Your task to perform on an android device: Show me the alarms in the clock app Image 0: 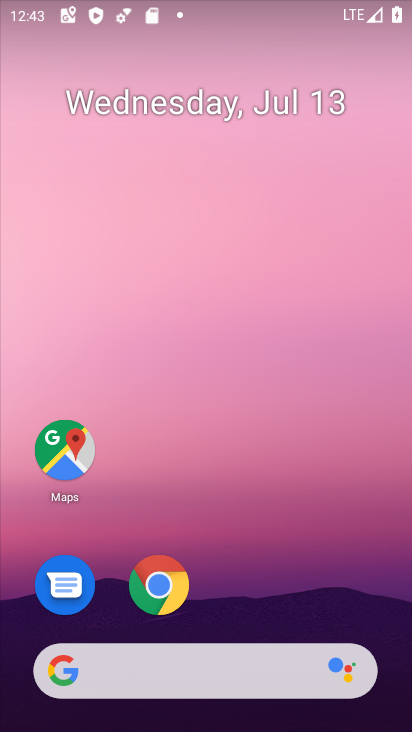
Step 0: drag from (231, 579) to (219, 160)
Your task to perform on an android device: Show me the alarms in the clock app Image 1: 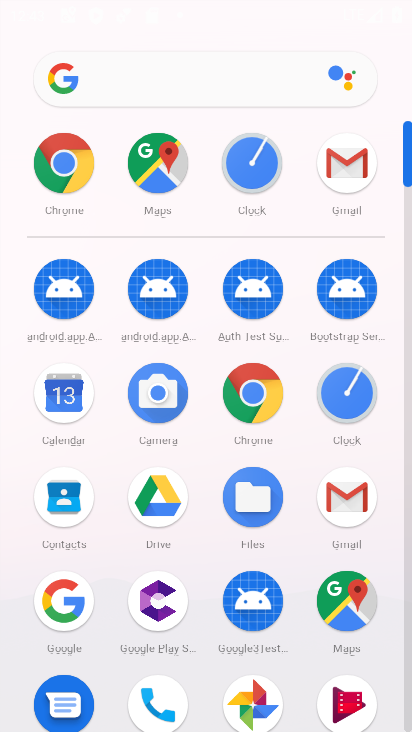
Step 1: click (329, 403)
Your task to perform on an android device: Show me the alarms in the clock app Image 2: 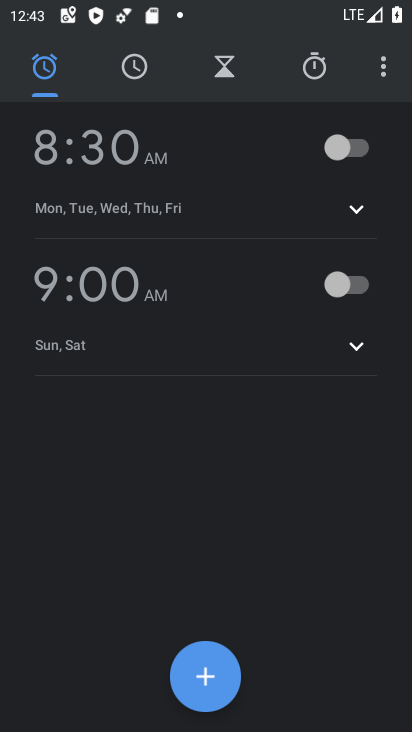
Step 2: task complete